Your task to perform on an android device: Turn on the flashlight Image 0: 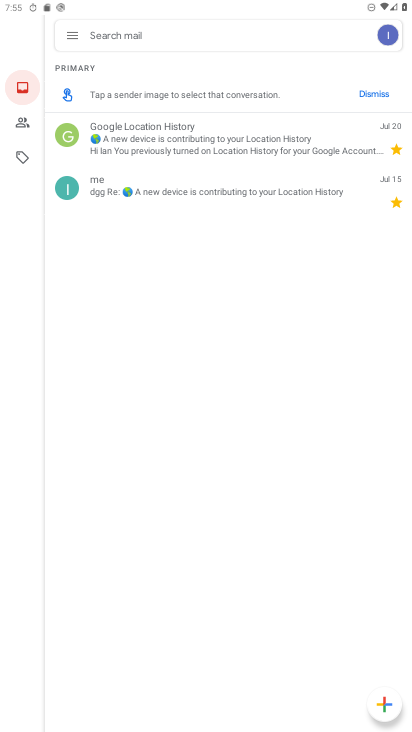
Step 0: press home button
Your task to perform on an android device: Turn on the flashlight Image 1: 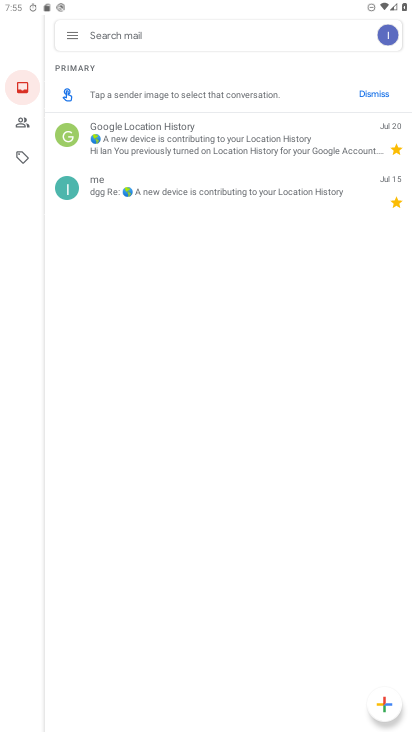
Step 1: drag from (192, 526) to (285, 169)
Your task to perform on an android device: Turn on the flashlight Image 2: 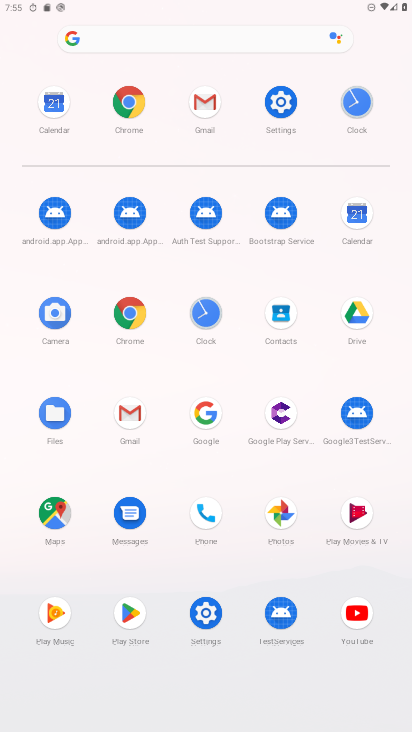
Step 2: click (212, 616)
Your task to perform on an android device: Turn on the flashlight Image 3: 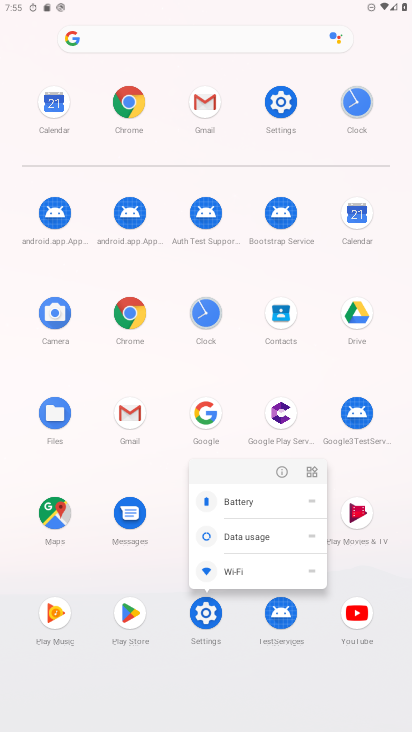
Step 3: click (285, 473)
Your task to perform on an android device: Turn on the flashlight Image 4: 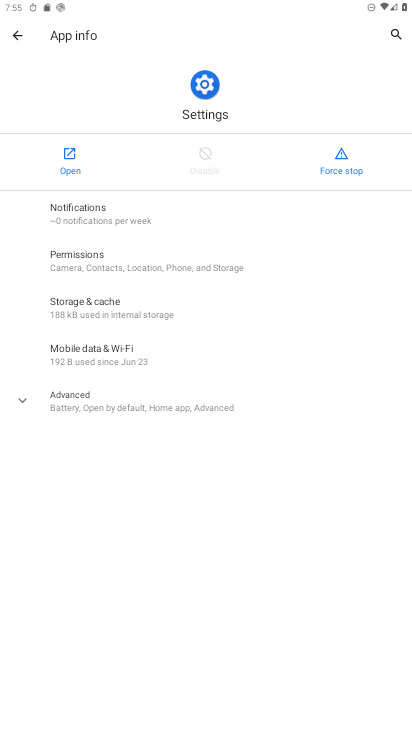
Step 4: click (72, 150)
Your task to perform on an android device: Turn on the flashlight Image 5: 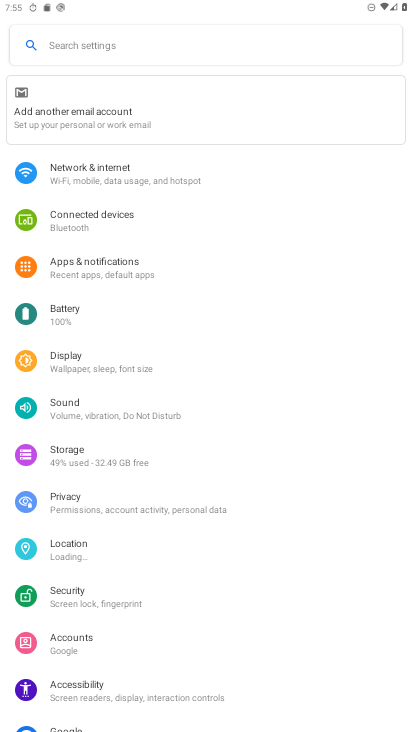
Step 5: click (167, 48)
Your task to perform on an android device: Turn on the flashlight Image 6: 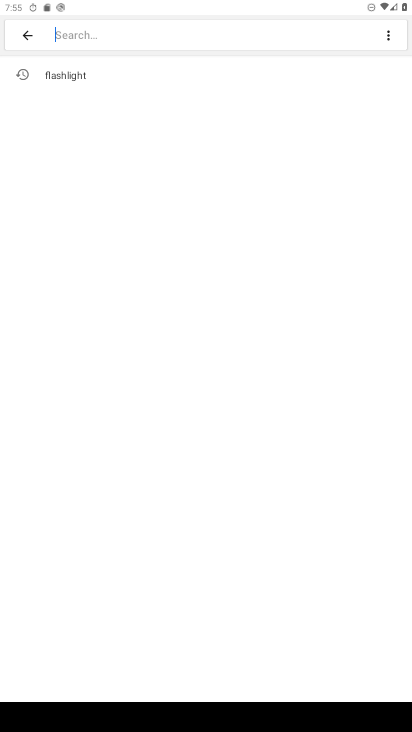
Step 6: click (174, 71)
Your task to perform on an android device: Turn on the flashlight Image 7: 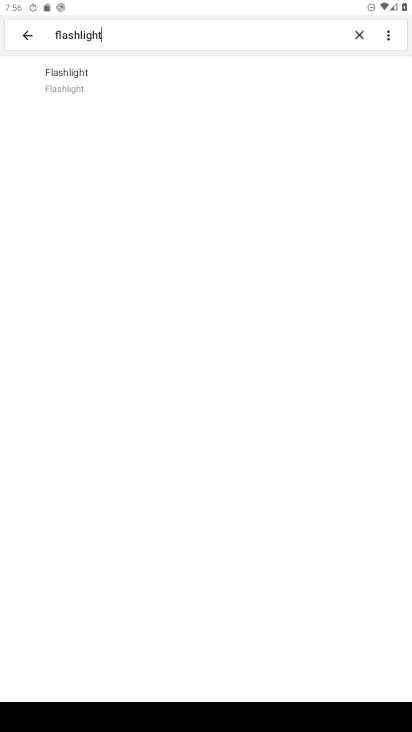
Step 7: drag from (213, 440) to (227, 170)
Your task to perform on an android device: Turn on the flashlight Image 8: 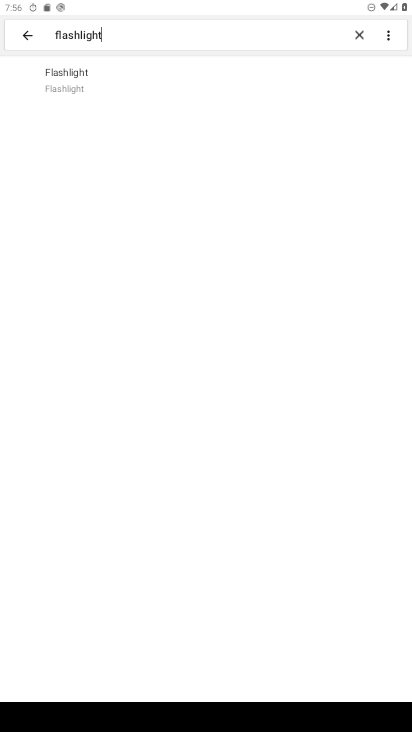
Step 8: click (117, 97)
Your task to perform on an android device: Turn on the flashlight Image 9: 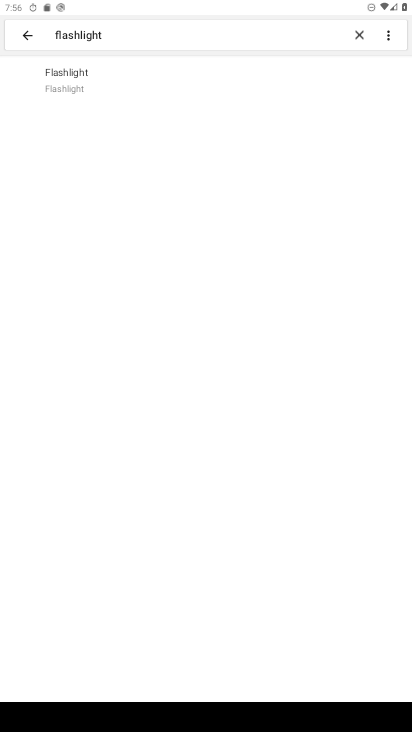
Step 9: click (117, 97)
Your task to perform on an android device: Turn on the flashlight Image 10: 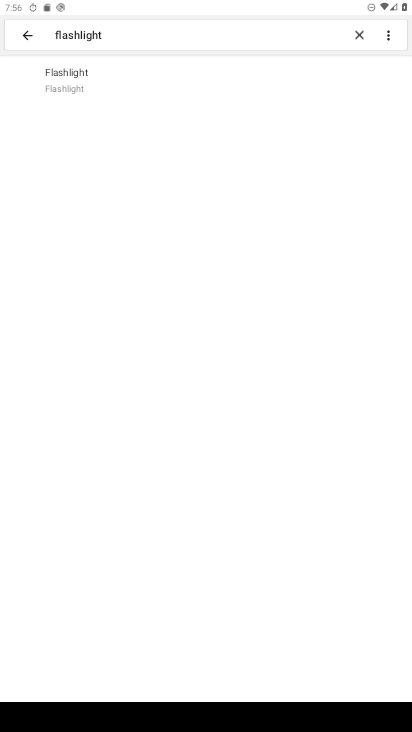
Step 10: task complete